Your task to perform on an android device: Open notification settings Image 0: 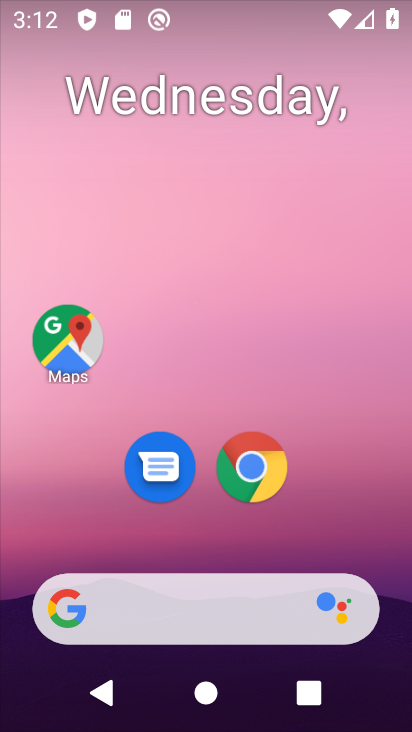
Step 0: drag from (398, 616) to (339, 167)
Your task to perform on an android device: Open notification settings Image 1: 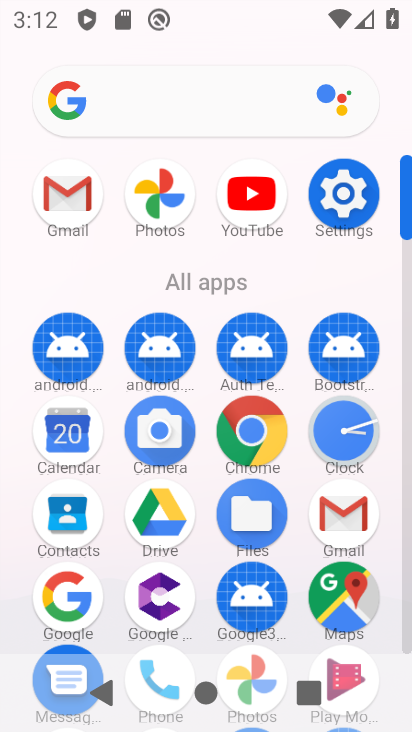
Step 1: click (408, 636)
Your task to perform on an android device: Open notification settings Image 2: 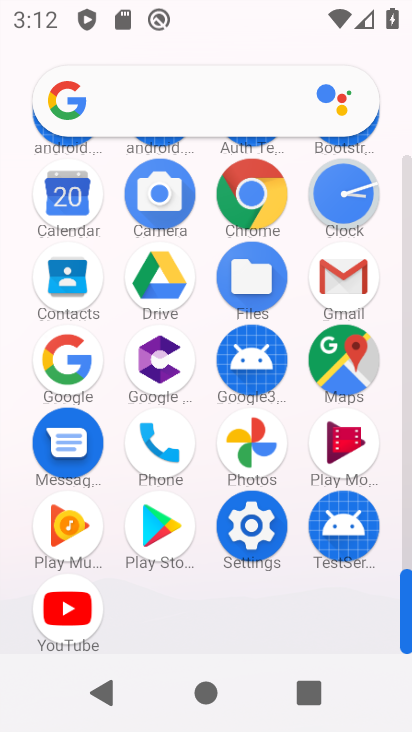
Step 2: click (248, 521)
Your task to perform on an android device: Open notification settings Image 3: 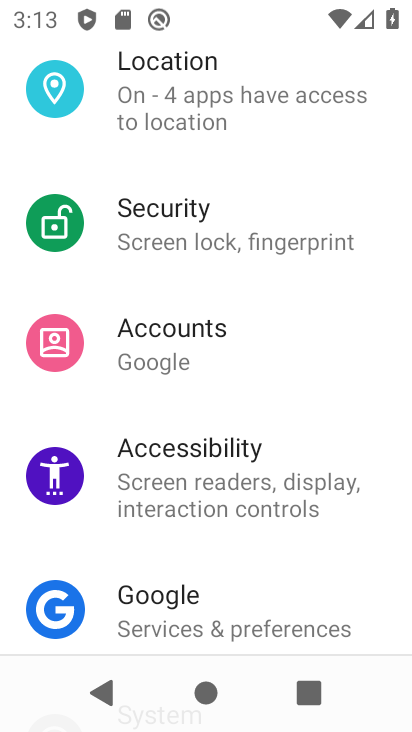
Step 3: drag from (252, 331) to (231, 626)
Your task to perform on an android device: Open notification settings Image 4: 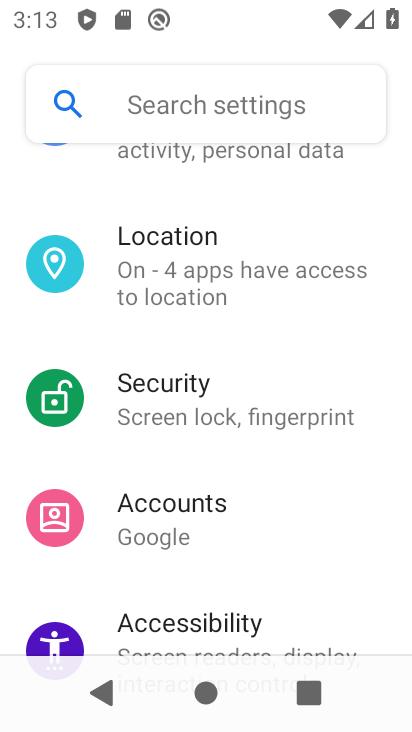
Step 4: drag from (256, 384) to (242, 622)
Your task to perform on an android device: Open notification settings Image 5: 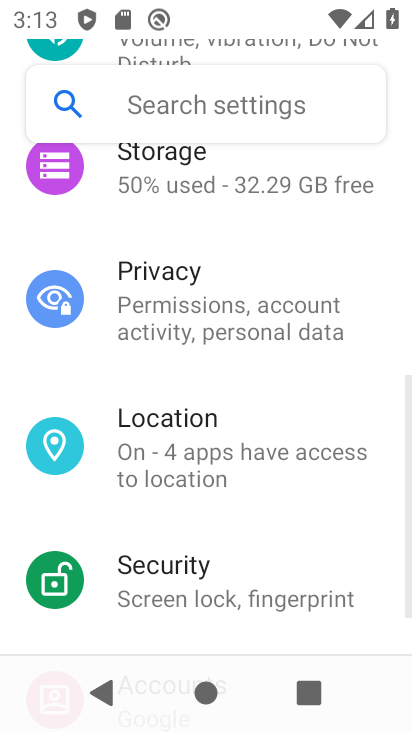
Step 5: drag from (244, 662) to (222, 719)
Your task to perform on an android device: Open notification settings Image 6: 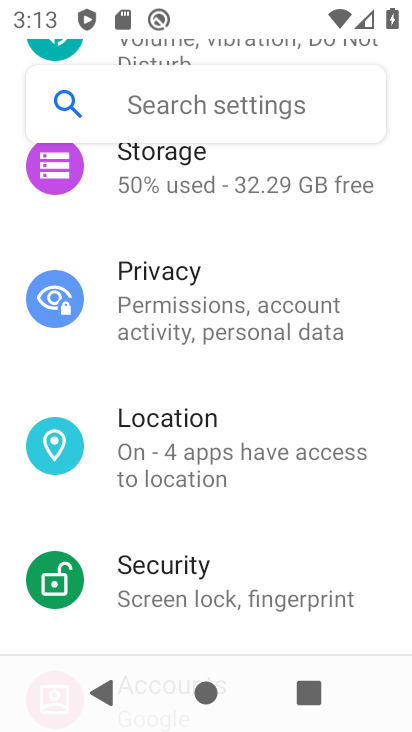
Step 6: drag from (225, 335) to (201, 501)
Your task to perform on an android device: Open notification settings Image 7: 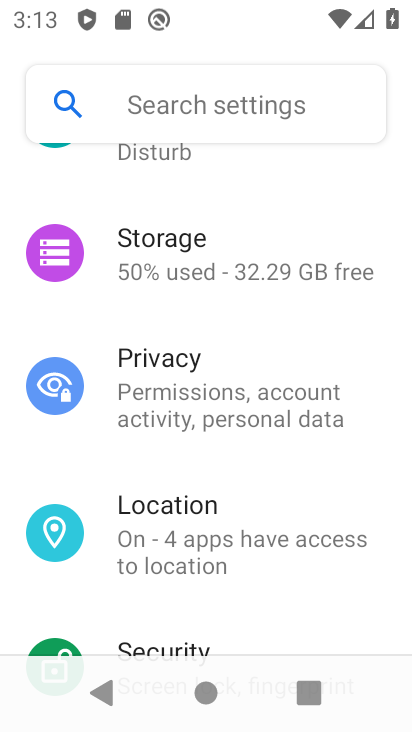
Step 7: drag from (232, 301) to (157, 676)
Your task to perform on an android device: Open notification settings Image 8: 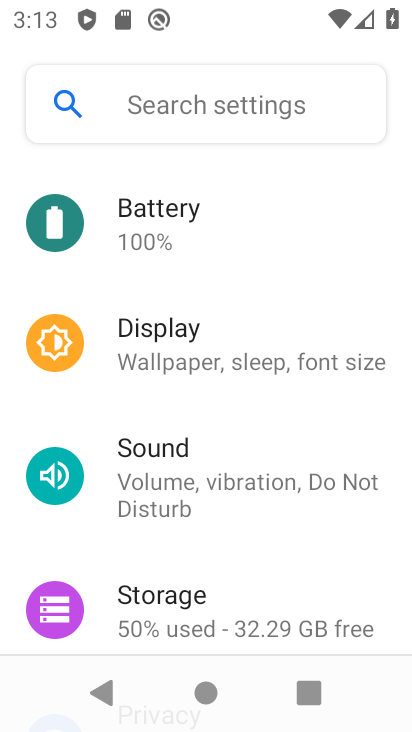
Step 8: drag from (251, 275) to (224, 452)
Your task to perform on an android device: Open notification settings Image 9: 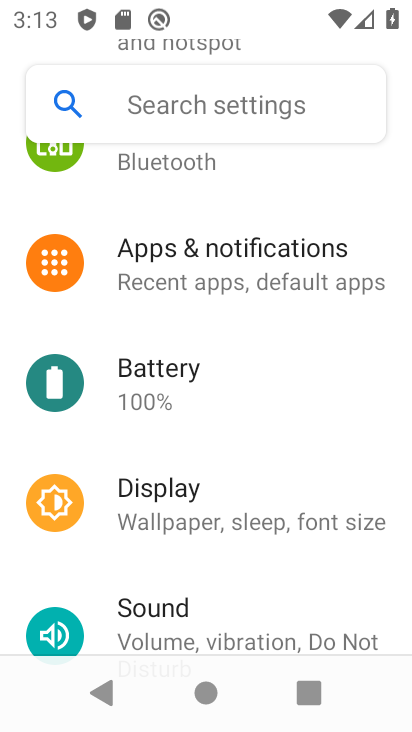
Step 9: drag from (240, 243) to (220, 409)
Your task to perform on an android device: Open notification settings Image 10: 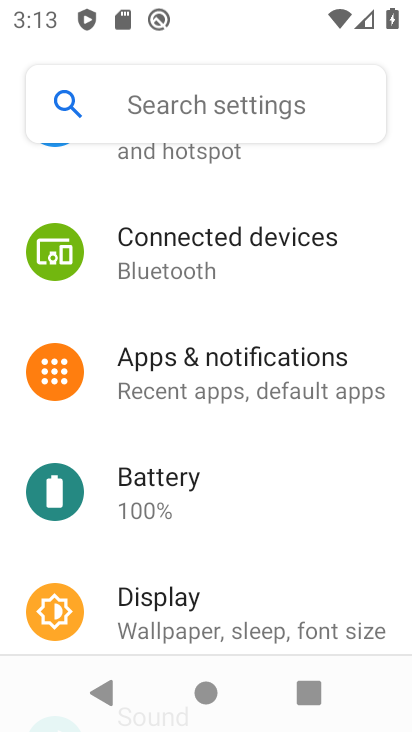
Step 10: drag from (254, 204) to (213, 515)
Your task to perform on an android device: Open notification settings Image 11: 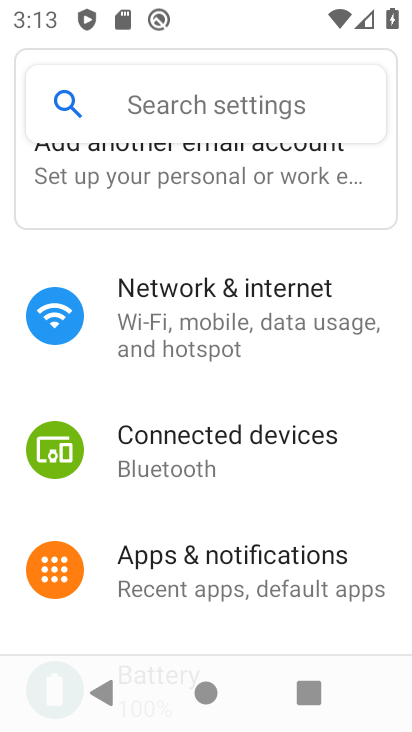
Step 11: click (187, 563)
Your task to perform on an android device: Open notification settings Image 12: 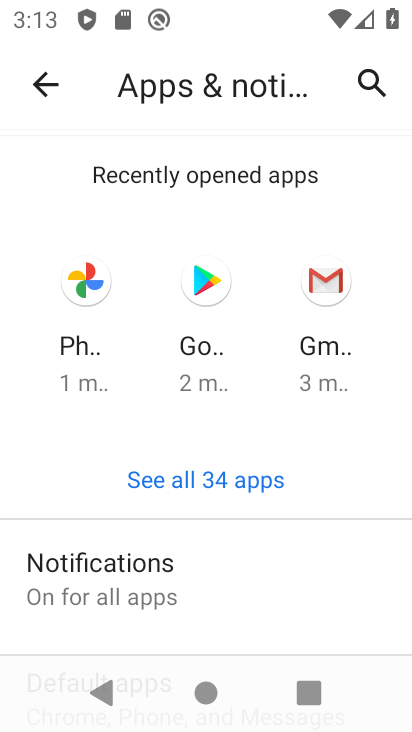
Step 12: drag from (182, 609) to (186, 289)
Your task to perform on an android device: Open notification settings Image 13: 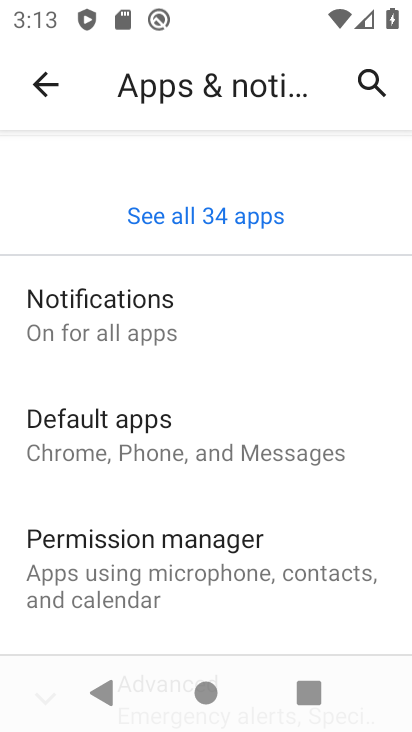
Step 13: click (87, 308)
Your task to perform on an android device: Open notification settings Image 14: 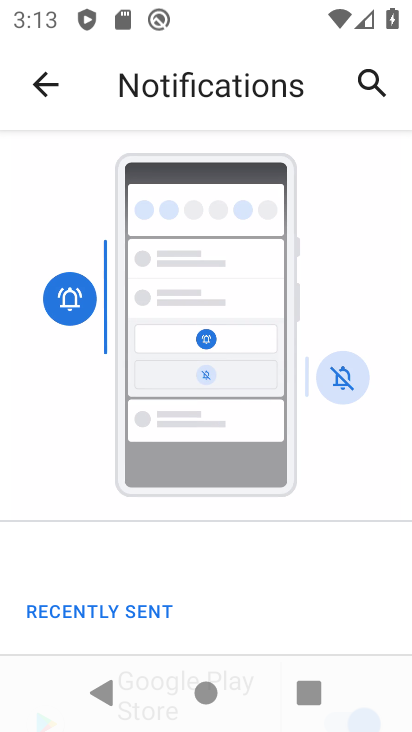
Step 14: task complete